Your task to perform on an android device: turn pop-ups on in chrome Image 0: 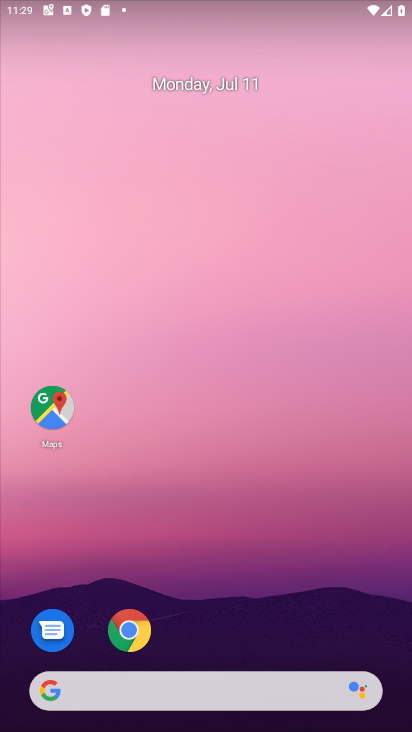
Step 0: click (123, 627)
Your task to perform on an android device: turn pop-ups on in chrome Image 1: 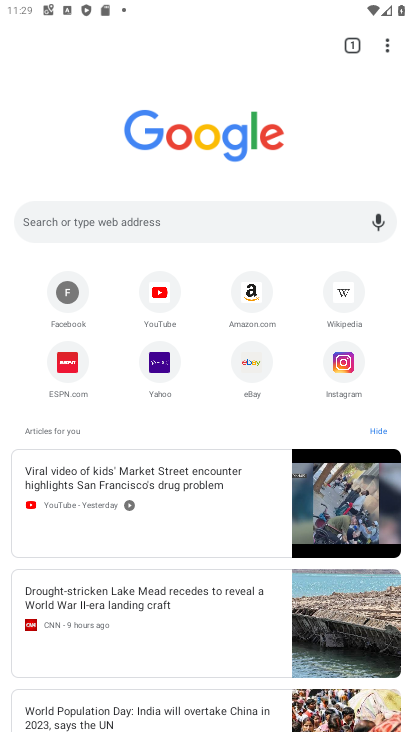
Step 1: click (386, 47)
Your task to perform on an android device: turn pop-ups on in chrome Image 2: 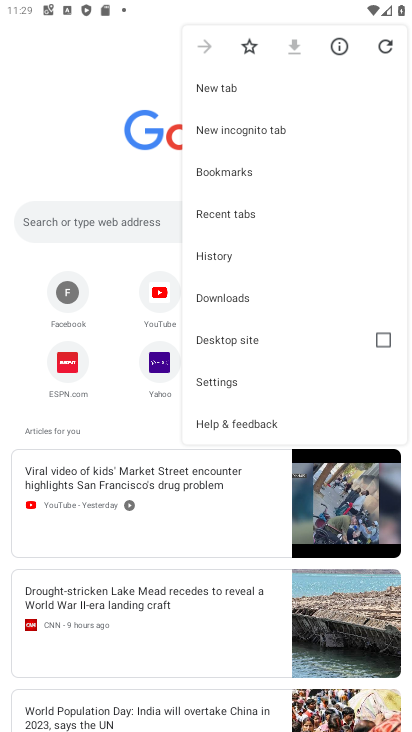
Step 2: click (221, 380)
Your task to perform on an android device: turn pop-ups on in chrome Image 3: 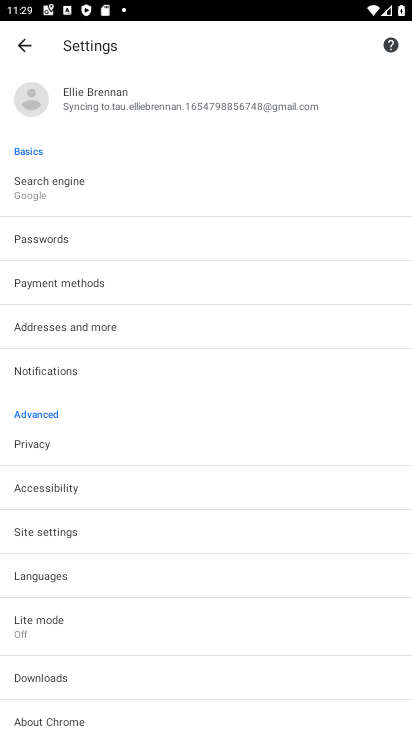
Step 3: click (37, 529)
Your task to perform on an android device: turn pop-ups on in chrome Image 4: 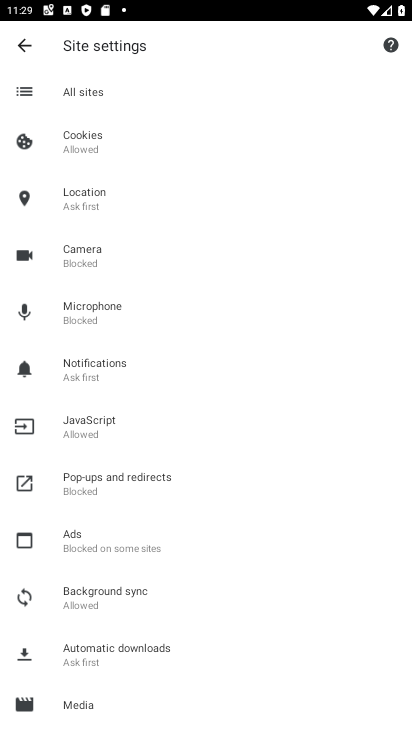
Step 4: click (104, 477)
Your task to perform on an android device: turn pop-ups on in chrome Image 5: 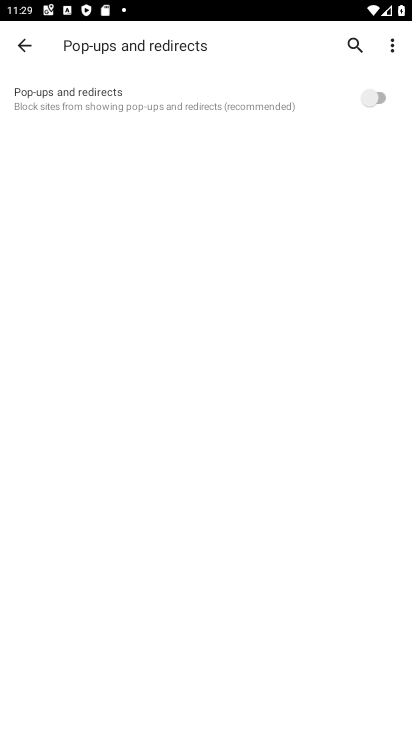
Step 5: click (383, 98)
Your task to perform on an android device: turn pop-ups on in chrome Image 6: 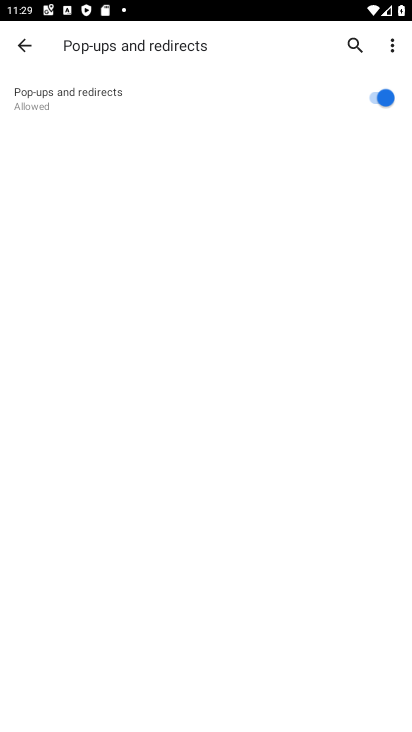
Step 6: task complete